Your task to perform on an android device: toggle notification dots Image 0: 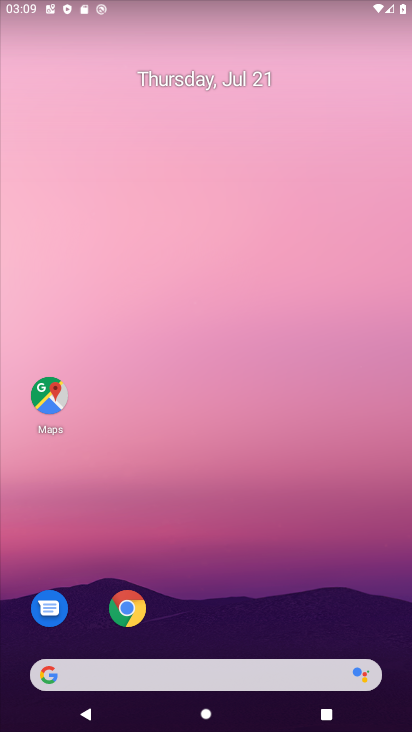
Step 0: drag from (316, 613) to (366, 5)
Your task to perform on an android device: toggle notification dots Image 1: 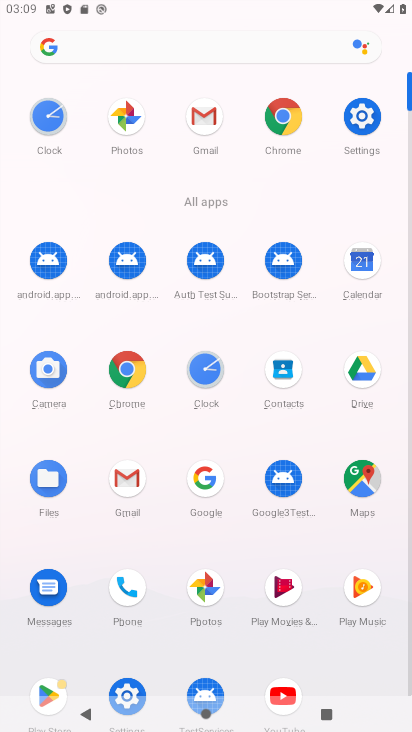
Step 1: click (364, 112)
Your task to perform on an android device: toggle notification dots Image 2: 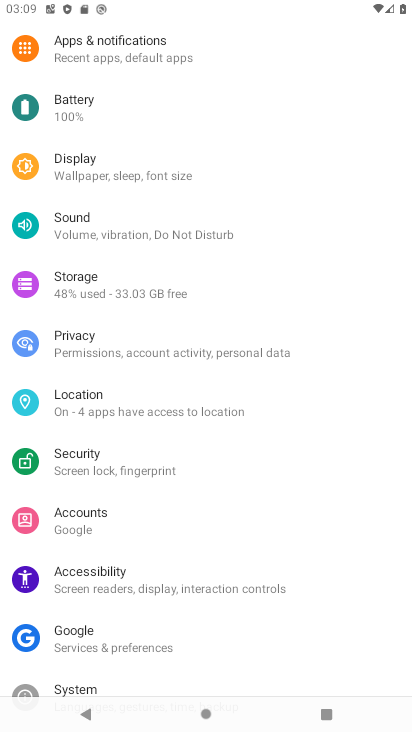
Step 2: click (123, 41)
Your task to perform on an android device: toggle notification dots Image 3: 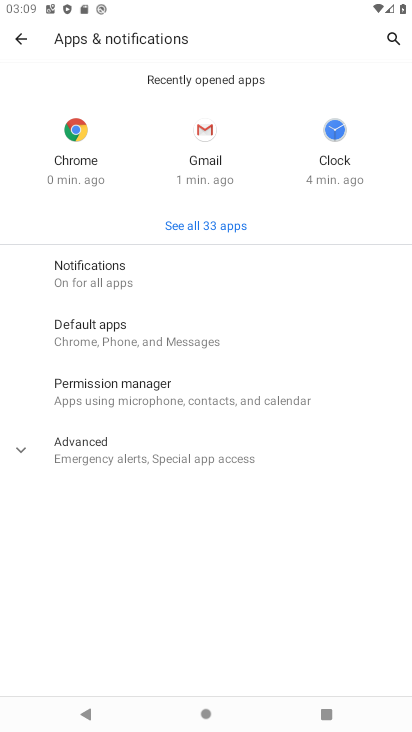
Step 3: click (144, 279)
Your task to perform on an android device: toggle notification dots Image 4: 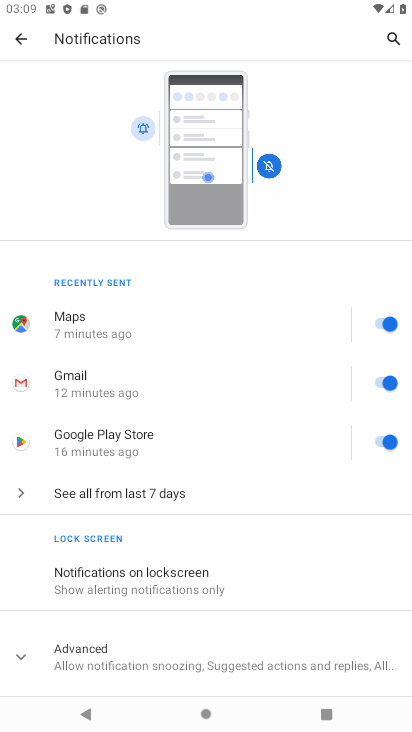
Step 4: click (187, 648)
Your task to perform on an android device: toggle notification dots Image 5: 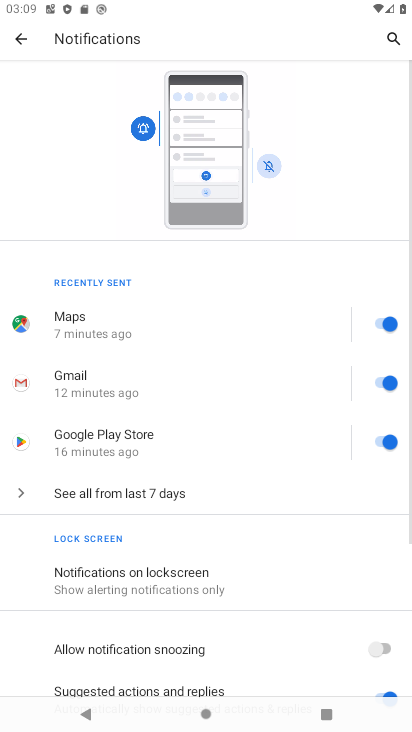
Step 5: drag from (208, 565) to (228, 293)
Your task to perform on an android device: toggle notification dots Image 6: 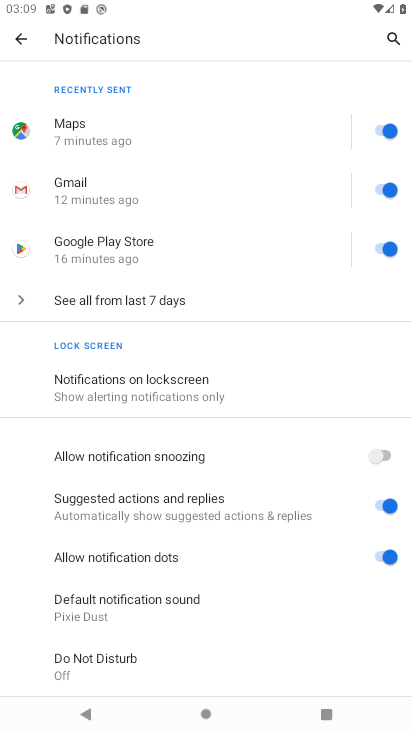
Step 6: click (387, 553)
Your task to perform on an android device: toggle notification dots Image 7: 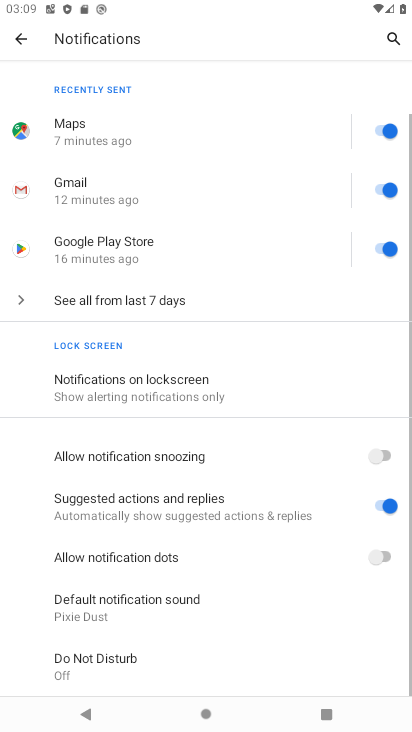
Step 7: task complete